Your task to perform on an android device: What's the weather? Image 0: 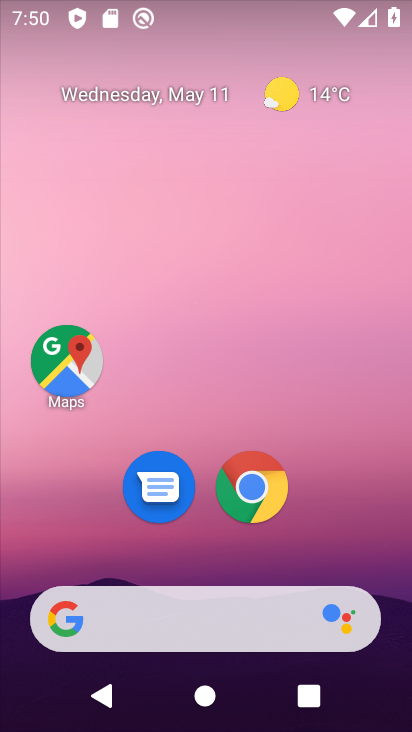
Step 0: drag from (181, 578) to (265, 272)
Your task to perform on an android device: What's the weather? Image 1: 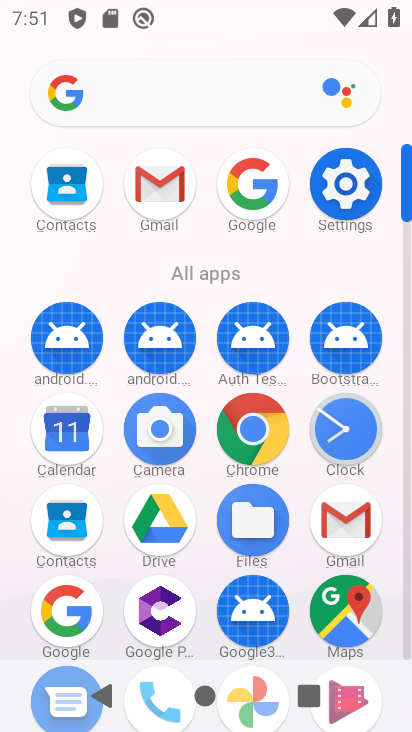
Step 1: click (57, 621)
Your task to perform on an android device: What's the weather? Image 2: 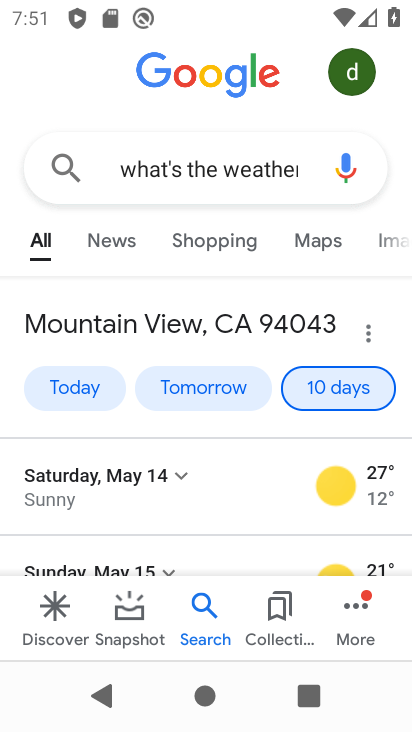
Step 2: click (85, 378)
Your task to perform on an android device: What's the weather? Image 3: 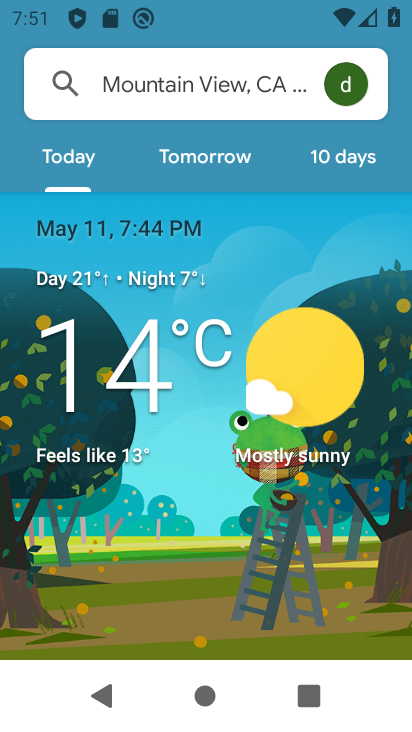
Step 3: task complete